Your task to perform on an android device: Open the Play Movies app and select the watchlist tab. Image 0: 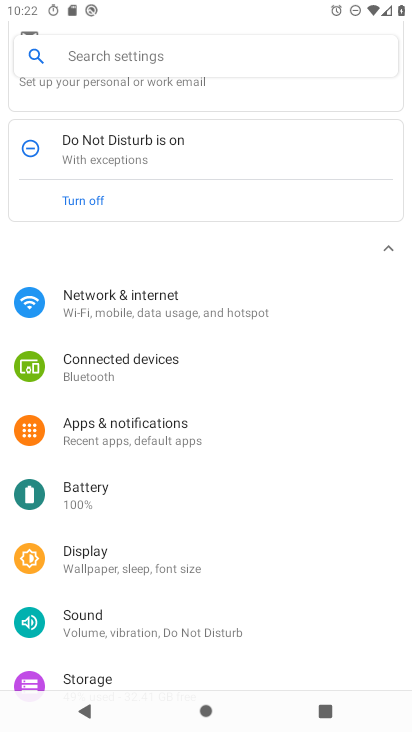
Step 0: press home button
Your task to perform on an android device: Open the Play Movies app and select the watchlist tab. Image 1: 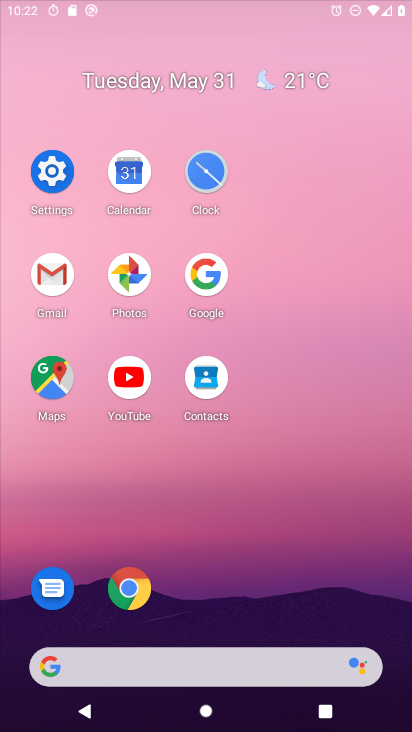
Step 1: drag from (197, 592) to (257, 97)
Your task to perform on an android device: Open the Play Movies app and select the watchlist tab. Image 2: 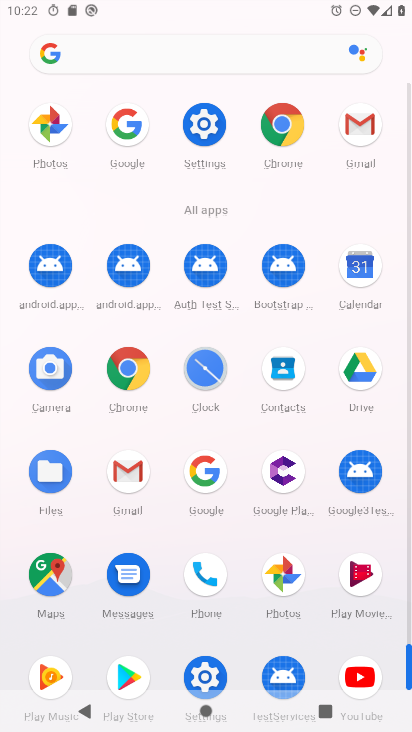
Step 2: drag from (222, 486) to (227, 154)
Your task to perform on an android device: Open the Play Movies app and select the watchlist tab. Image 3: 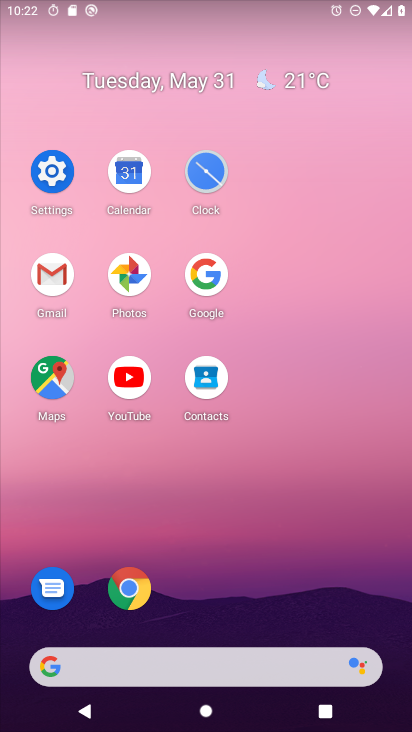
Step 3: drag from (235, 608) to (263, 154)
Your task to perform on an android device: Open the Play Movies app and select the watchlist tab. Image 4: 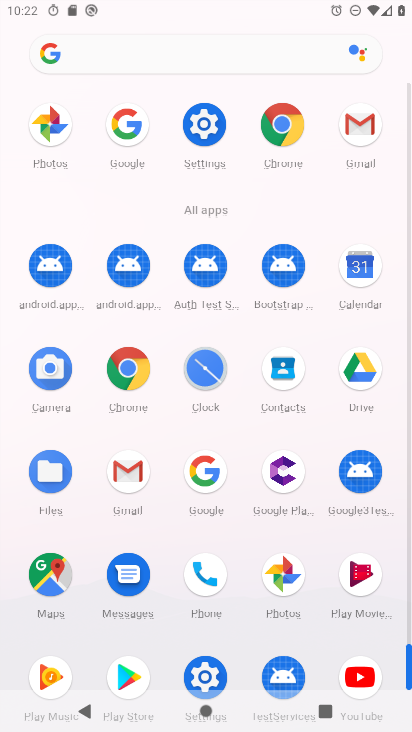
Step 4: click (374, 594)
Your task to perform on an android device: Open the Play Movies app and select the watchlist tab. Image 5: 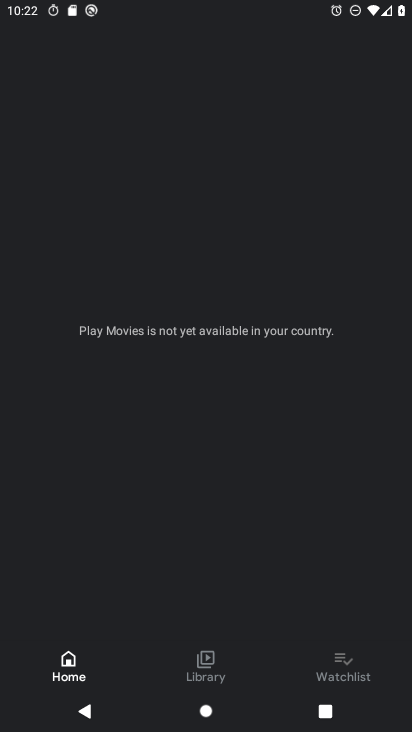
Step 5: task complete